Your task to perform on an android device: What's the weather going to be tomorrow? Image 0: 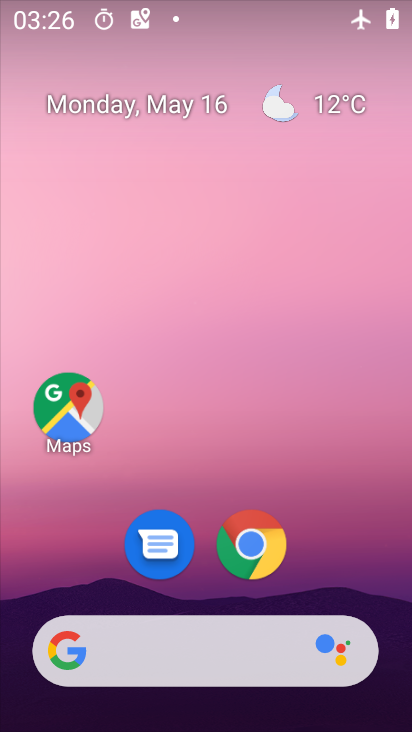
Step 0: click (281, 96)
Your task to perform on an android device: What's the weather going to be tomorrow? Image 1: 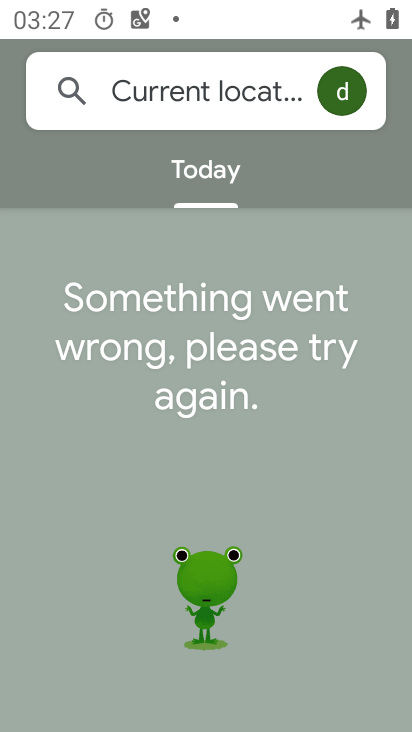
Step 1: task complete